Your task to perform on an android device: read, delete, or share a saved page in the chrome app Image 0: 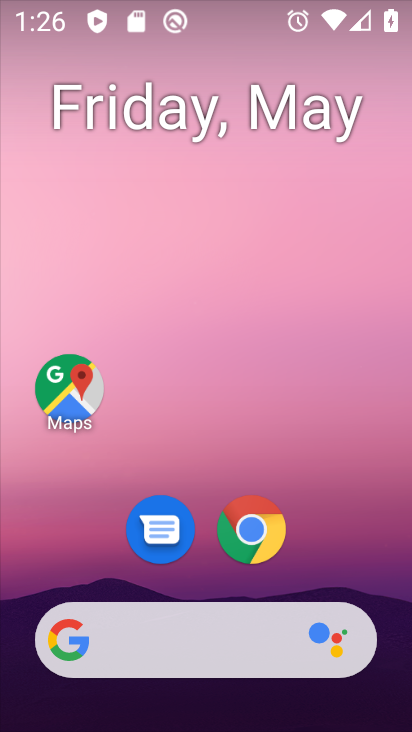
Step 0: click (248, 530)
Your task to perform on an android device: read, delete, or share a saved page in the chrome app Image 1: 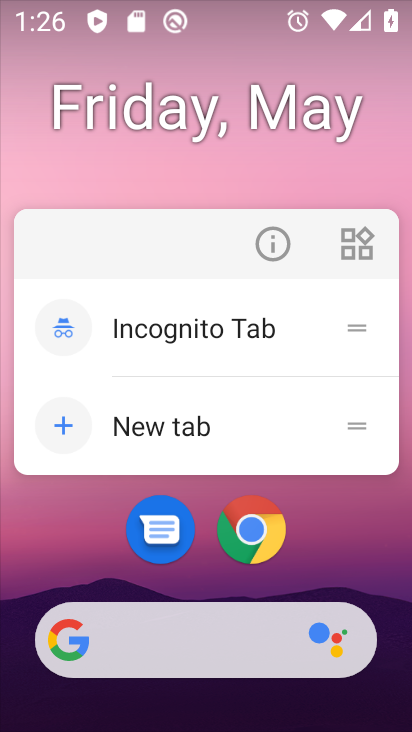
Step 1: click (254, 506)
Your task to perform on an android device: read, delete, or share a saved page in the chrome app Image 2: 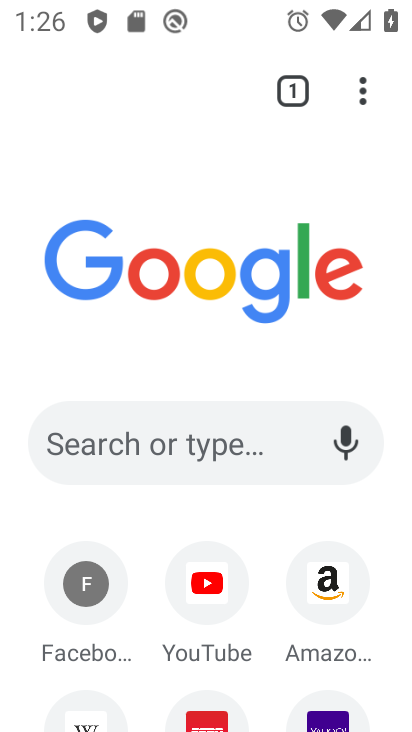
Step 2: click (360, 83)
Your task to perform on an android device: read, delete, or share a saved page in the chrome app Image 3: 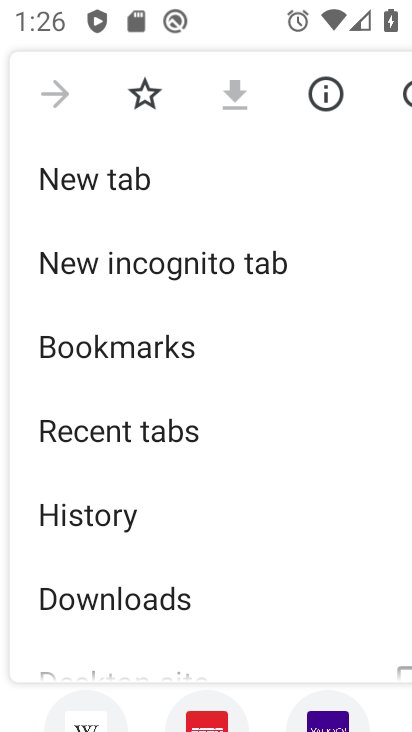
Step 3: click (89, 600)
Your task to perform on an android device: read, delete, or share a saved page in the chrome app Image 4: 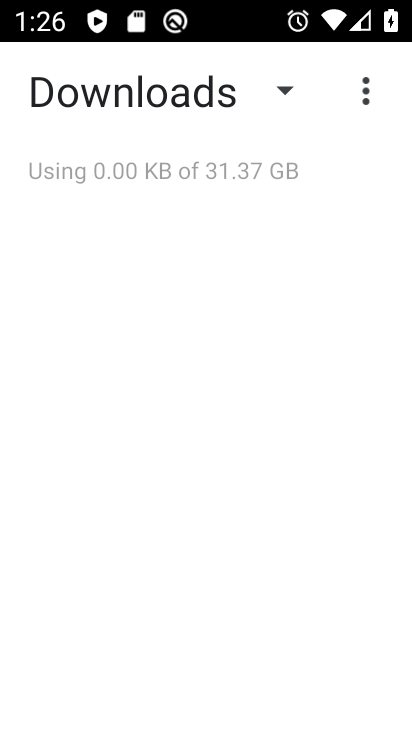
Step 4: task complete